Your task to perform on an android device: find which apps use the phone's location Image 0: 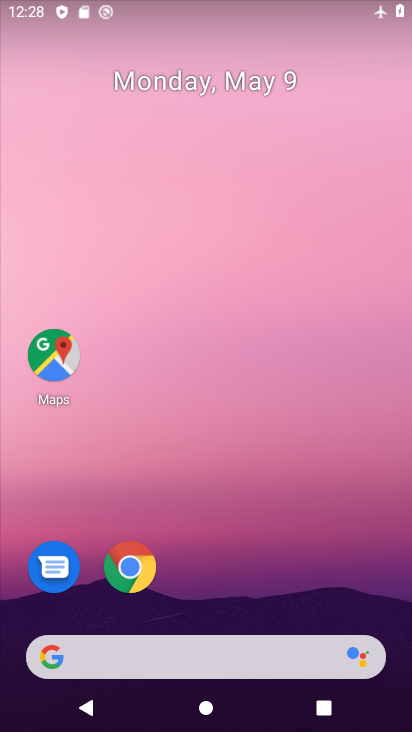
Step 0: drag from (222, 613) to (283, 235)
Your task to perform on an android device: find which apps use the phone's location Image 1: 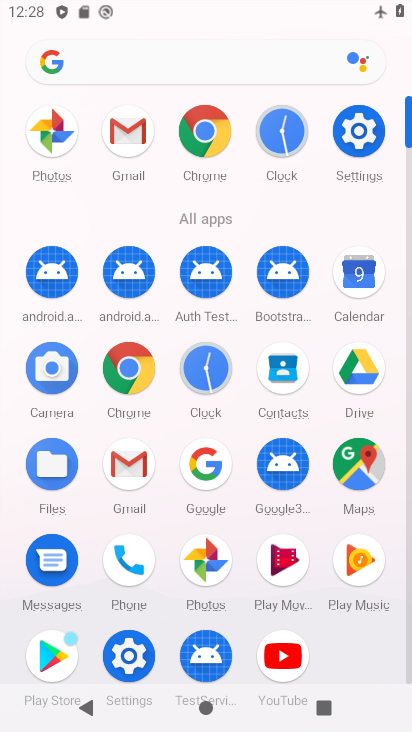
Step 1: click (140, 634)
Your task to perform on an android device: find which apps use the phone's location Image 2: 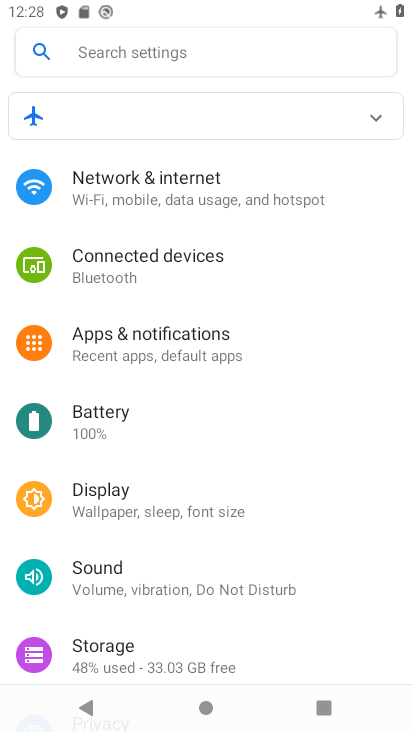
Step 2: drag from (213, 588) to (215, 265)
Your task to perform on an android device: find which apps use the phone's location Image 3: 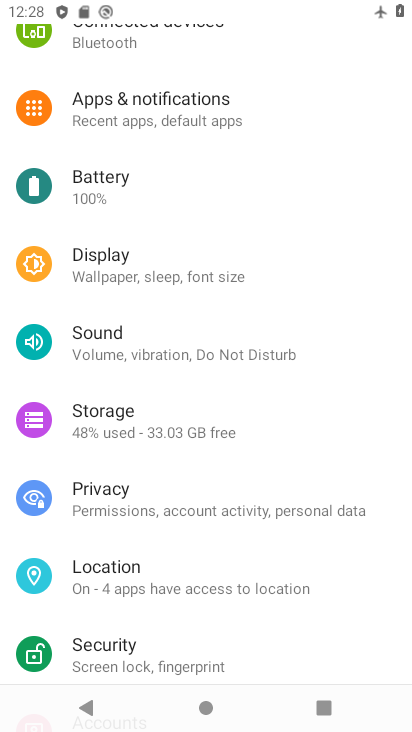
Step 3: drag from (185, 609) to (189, 472)
Your task to perform on an android device: find which apps use the phone's location Image 4: 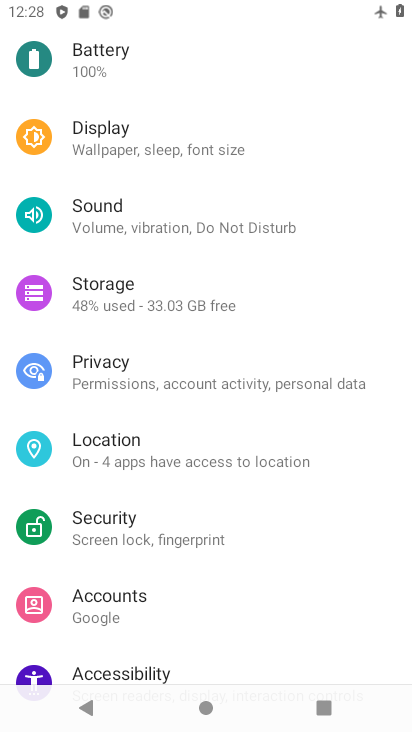
Step 4: click (167, 456)
Your task to perform on an android device: find which apps use the phone's location Image 5: 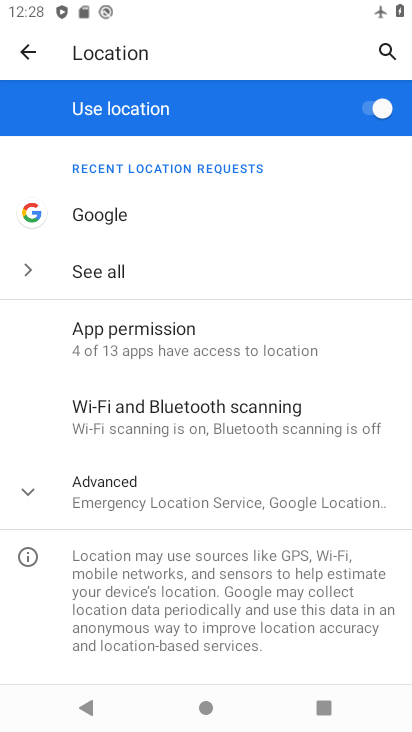
Step 5: click (138, 335)
Your task to perform on an android device: find which apps use the phone's location Image 6: 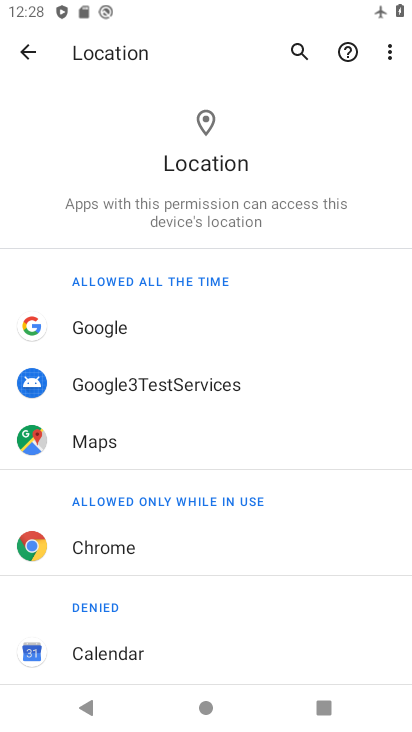
Step 6: task complete